Your task to perform on an android device: set an alarm Image 0: 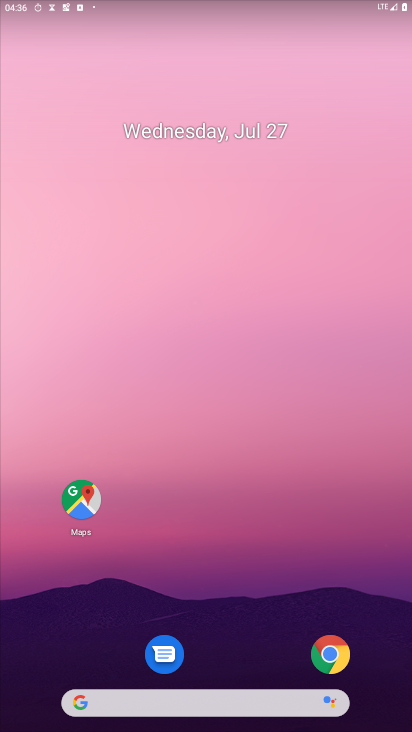
Step 0: drag from (289, 689) to (282, 31)
Your task to perform on an android device: set an alarm Image 1: 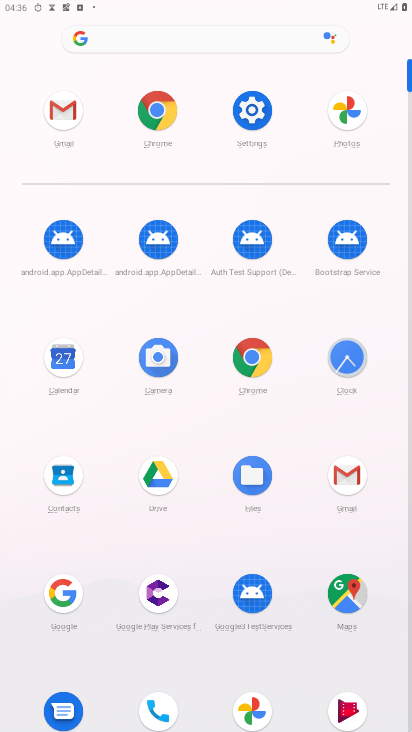
Step 1: click (361, 348)
Your task to perform on an android device: set an alarm Image 2: 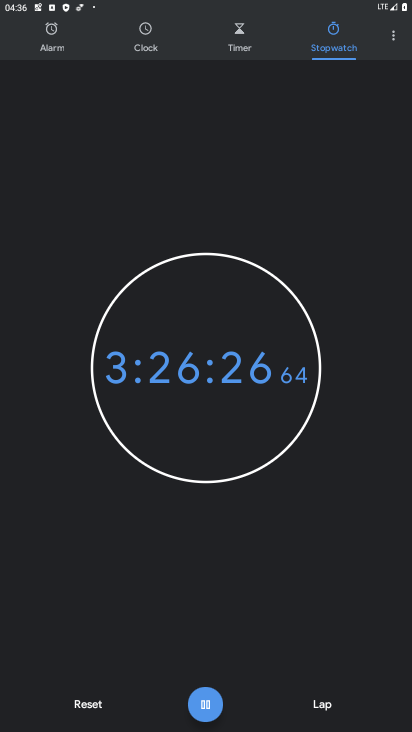
Step 2: click (33, 24)
Your task to perform on an android device: set an alarm Image 3: 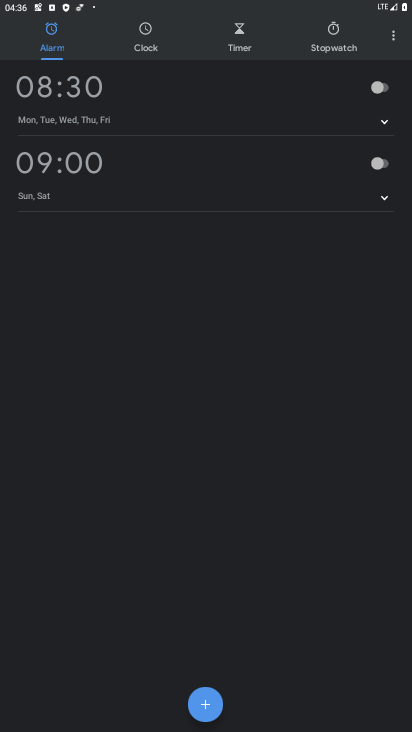
Step 3: click (384, 85)
Your task to perform on an android device: set an alarm Image 4: 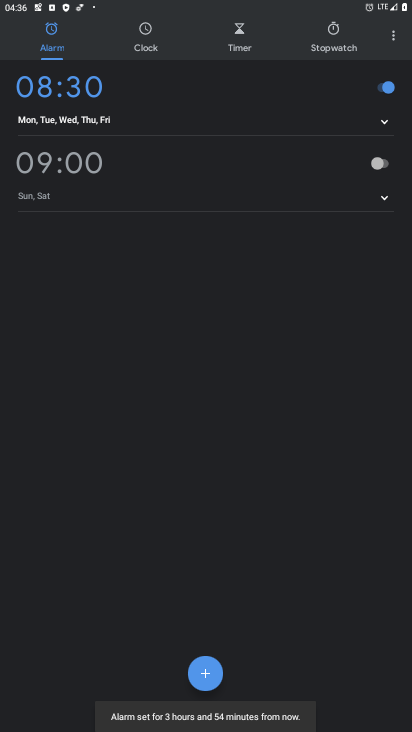
Step 4: task complete